Your task to perform on an android device: What's the weather going to be this weekend? Image 0: 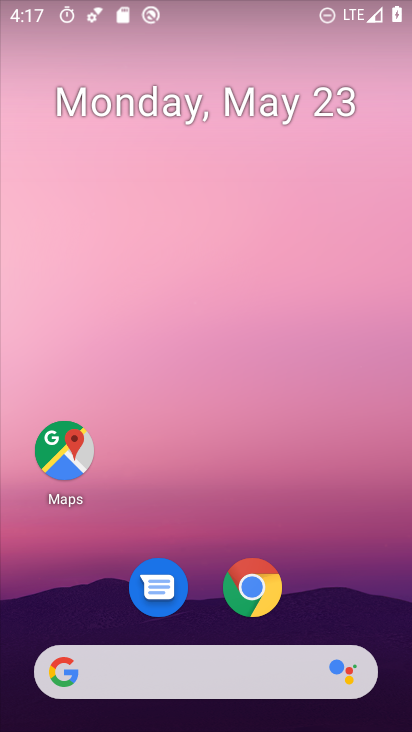
Step 0: drag from (205, 620) to (173, 5)
Your task to perform on an android device: What's the weather going to be this weekend? Image 1: 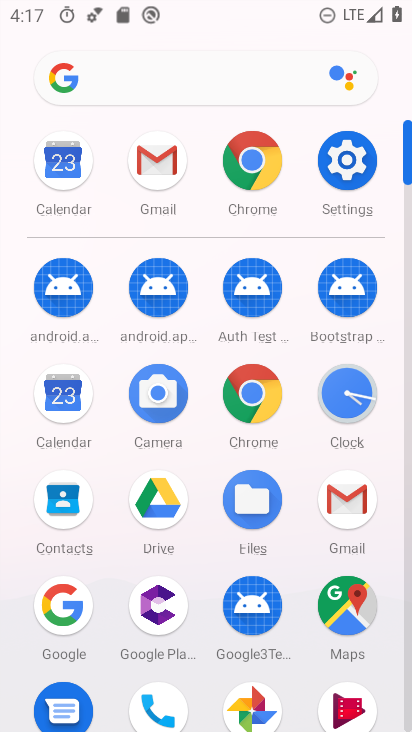
Step 1: click (190, 72)
Your task to perform on an android device: What's the weather going to be this weekend? Image 2: 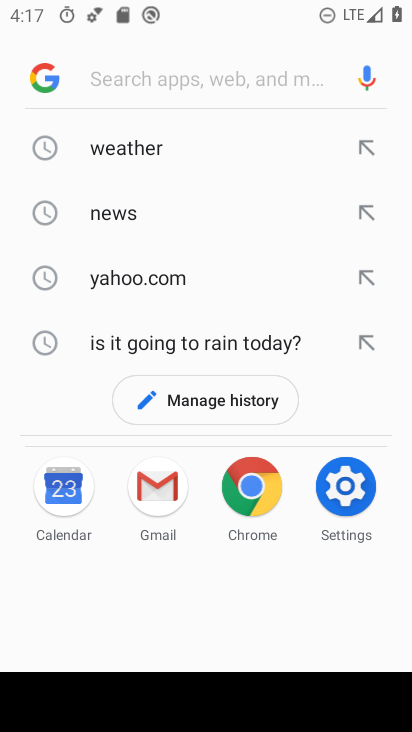
Step 2: click (157, 150)
Your task to perform on an android device: What's the weather going to be this weekend? Image 3: 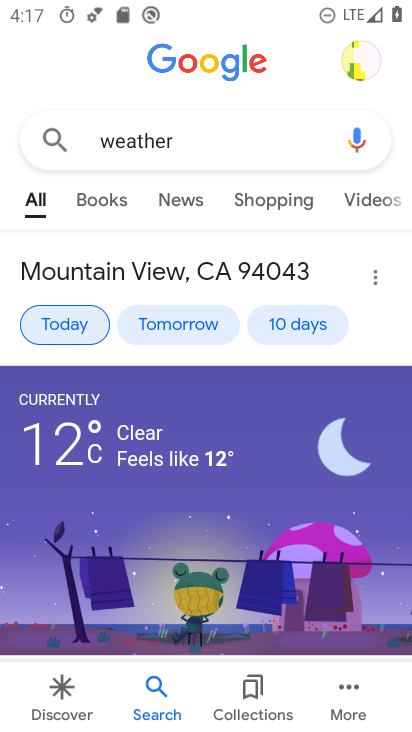
Step 3: click (286, 329)
Your task to perform on an android device: What's the weather going to be this weekend? Image 4: 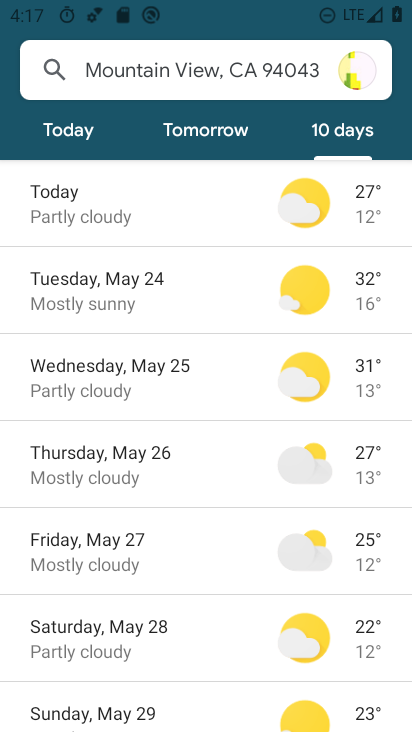
Step 4: task complete